Your task to perform on an android device: View the shopping cart on bestbuy. Add dell alienware to the cart on bestbuy, then select checkout. Image 0: 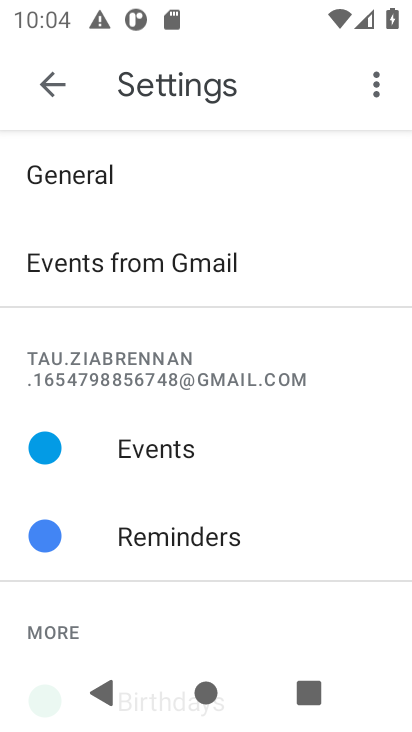
Step 0: press home button
Your task to perform on an android device: View the shopping cart on bestbuy. Add dell alienware to the cart on bestbuy, then select checkout. Image 1: 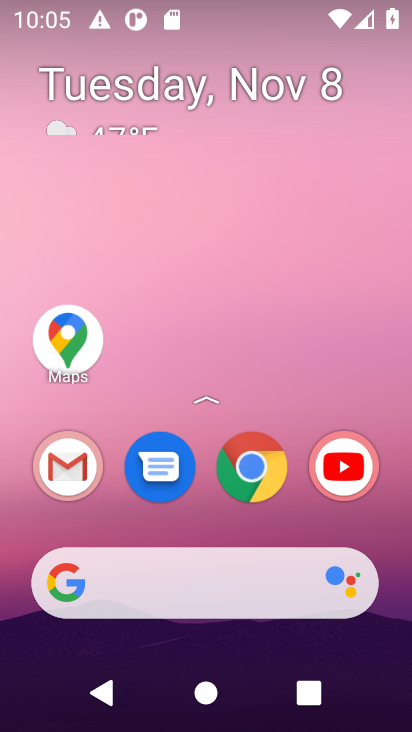
Step 1: click (158, 578)
Your task to perform on an android device: View the shopping cart on bestbuy. Add dell alienware to the cart on bestbuy, then select checkout. Image 2: 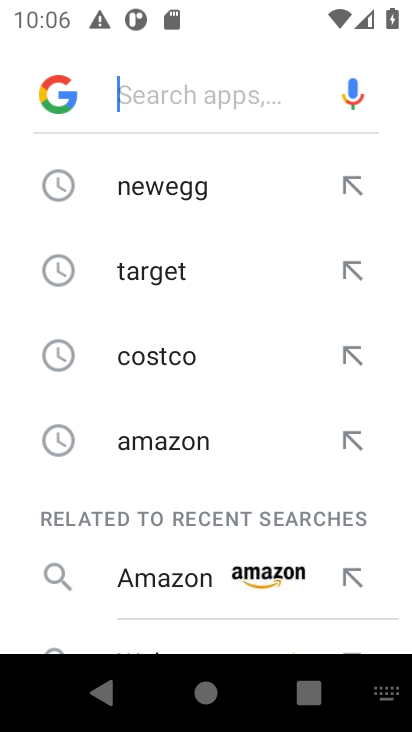
Step 2: type "best buy"
Your task to perform on an android device: View the shopping cart on bestbuy. Add dell alienware to the cart on bestbuy, then select checkout. Image 3: 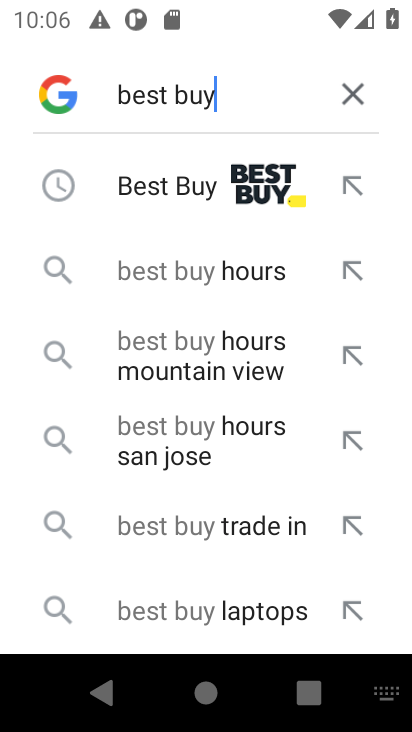
Step 3: click (286, 230)
Your task to perform on an android device: View the shopping cart on bestbuy. Add dell alienware to the cart on bestbuy, then select checkout. Image 4: 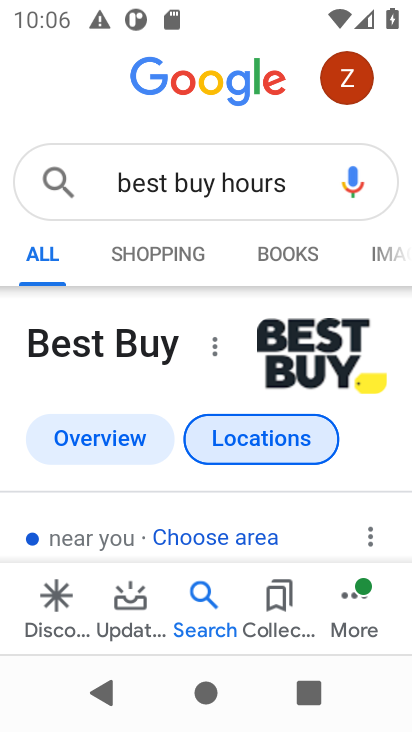
Step 4: task complete